Your task to perform on an android device: Show me popular games on the Play Store Image 0: 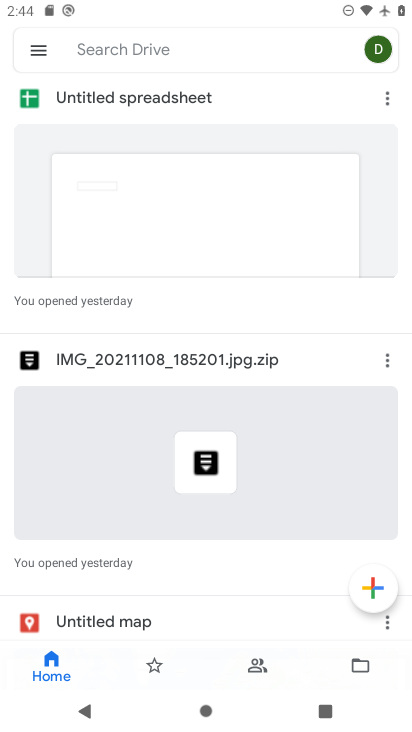
Step 0: press home button
Your task to perform on an android device: Show me popular games on the Play Store Image 1: 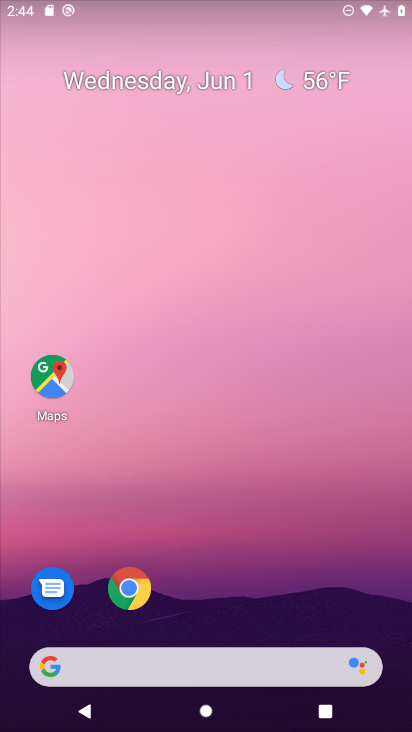
Step 1: drag from (273, 571) to (197, 56)
Your task to perform on an android device: Show me popular games on the Play Store Image 2: 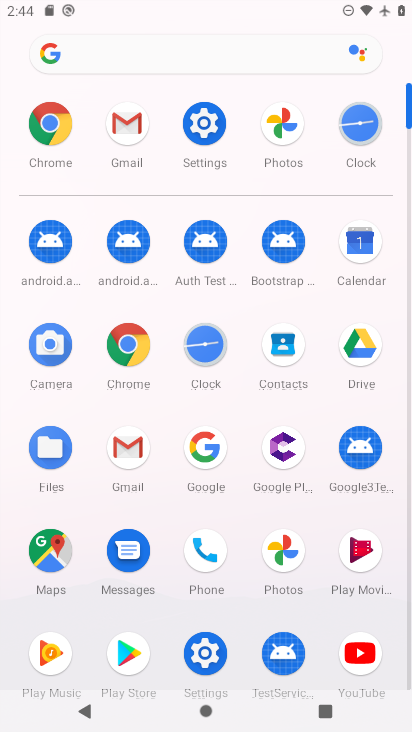
Step 2: click (131, 646)
Your task to perform on an android device: Show me popular games on the Play Store Image 3: 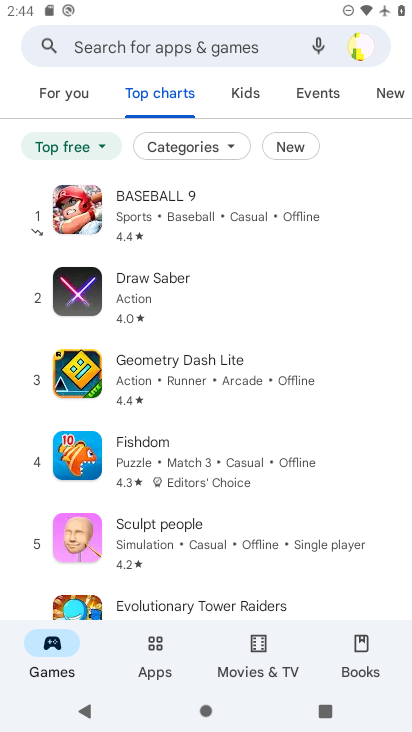
Step 3: task complete